Your task to perform on an android device: turn off translation in the chrome app Image 0: 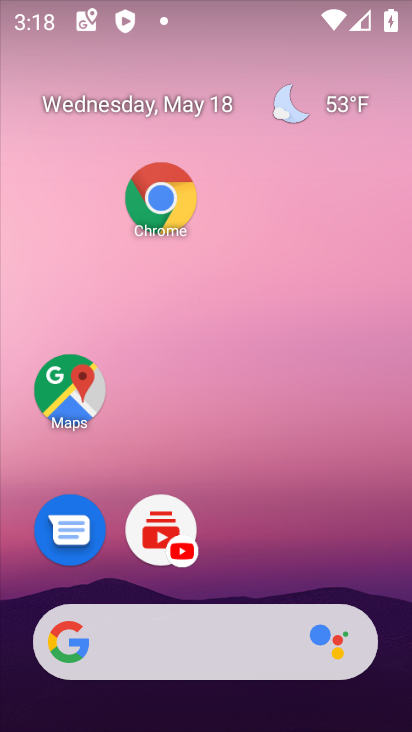
Step 0: drag from (256, 644) to (248, 153)
Your task to perform on an android device: turn off translation in the chrome app Image 1: 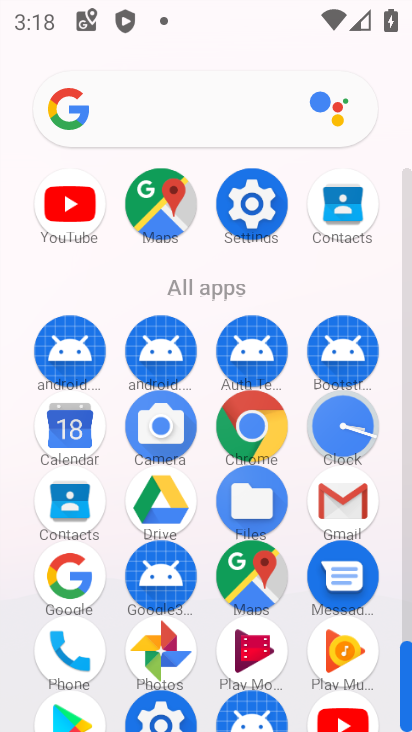
Step 1: click (248, 425)
Your task to perform on an android device: turn off translation in the chrome app Image 2: 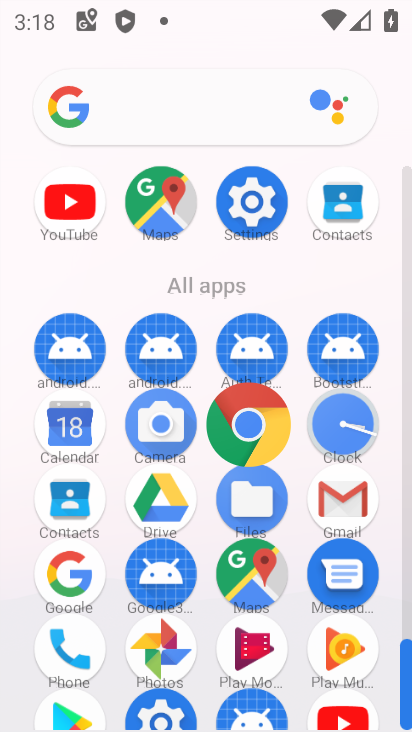
Step 2: click (248, 425)
Your task to perform on an android device: turn off translation in the chrome app Image 3: 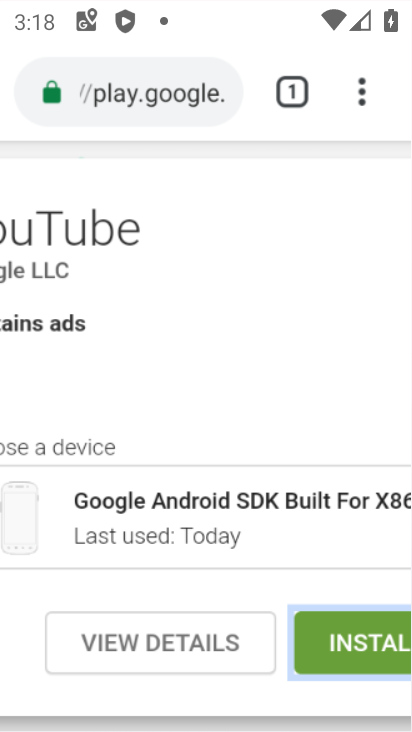
Step 3: click (248, 425)
Your task to perform on an android device: turn off translation in the chrome app Image 4: 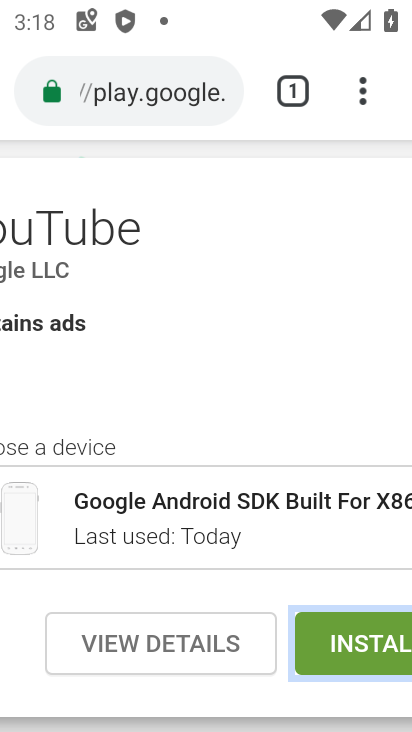
Step 4: drag from (359, 90) to (84, 140)
Your task to perform on an android device: turn off translation in the chrome app Image 5: 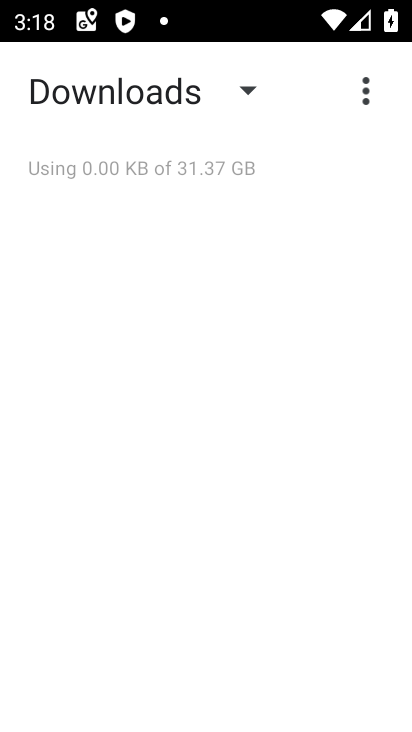
Step 5: press back button
Your task to perform on an android device: turn off translation in the chrome app Image 6: 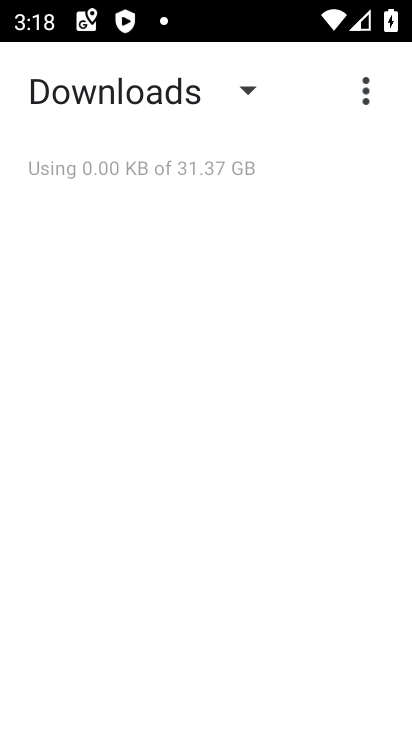
Step 6: press back button
Your task to perform on an android device: turn off translation in the chrome app Image 7: 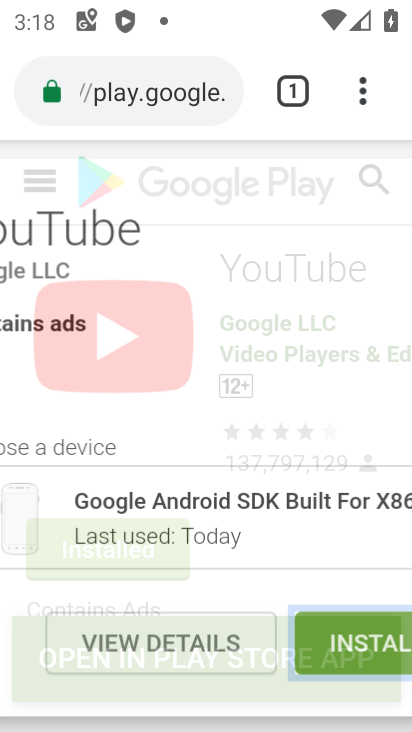
Step 7: drag from (357, 99) to (108, 290)
Your task to perform on an android device: turn off translation in the chrome app Image 8: 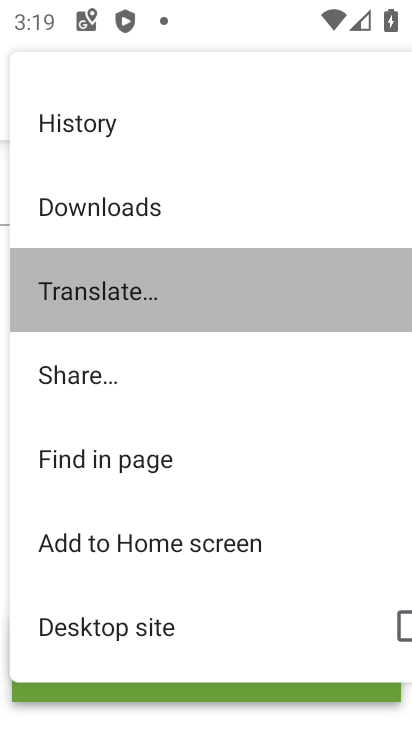
Step 8: click (97, 297)
Your task to perform on an android device: turn off translation in the chrome app Image 9: 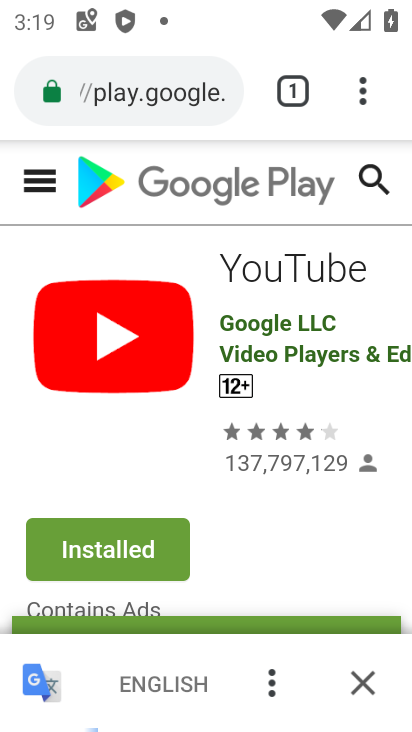
Step 9: drag from (363, 92) to (89, 558)
Your task to perform on an android device: turn off translation in the chrome app Image 10: 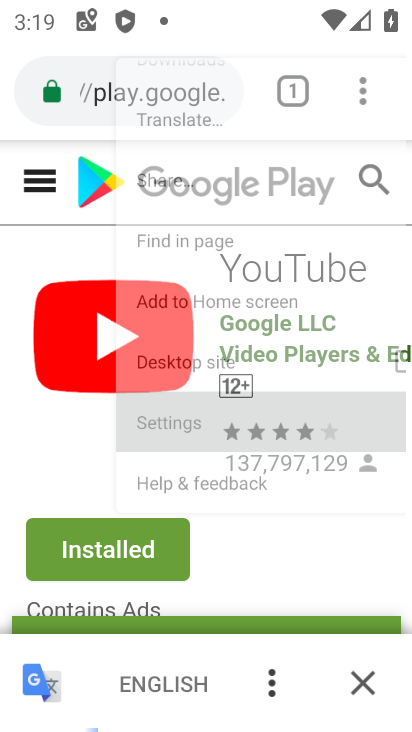
Step 10: click (89, 558)
Your task to perform on an android device: turn off translation in the chrome app Image 11: 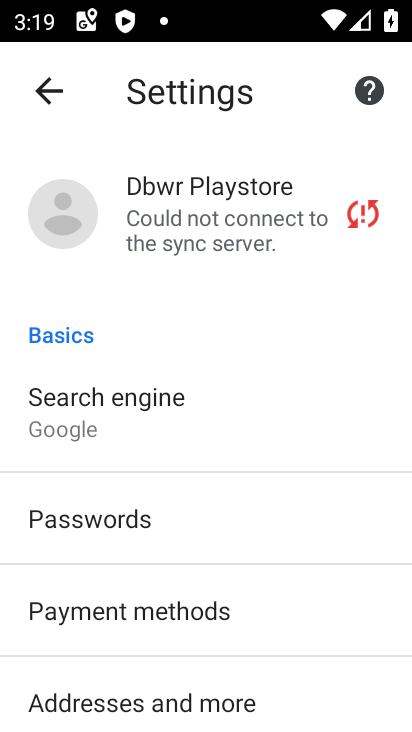
Step 11: drag from (186, 619) to (172, 299)
Your task to perform on an android device: turn off translation in the chrome app Image 12: 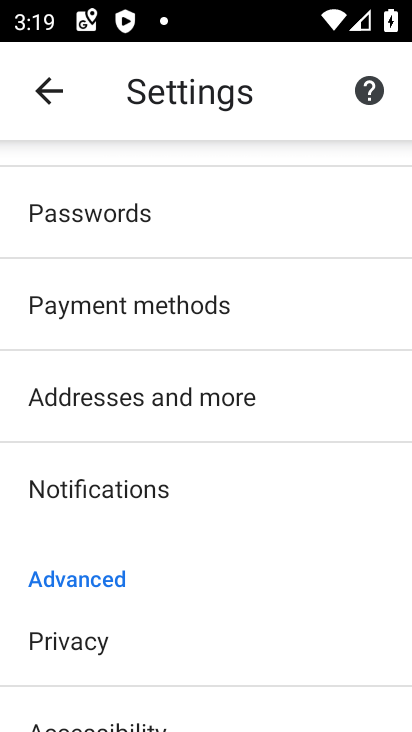
Step 12: drag from (149, 628) to (125, 415)
Your task to perform on an android device: turn off translation in the chrome app Image 13: 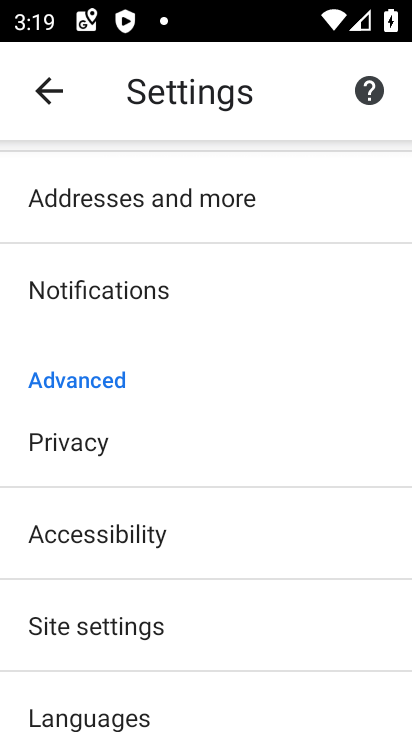
Step 13: drag from (109, 685) to (148, 408)
Your task to perform on an android device: turn off translation in the chrome app Image 14: 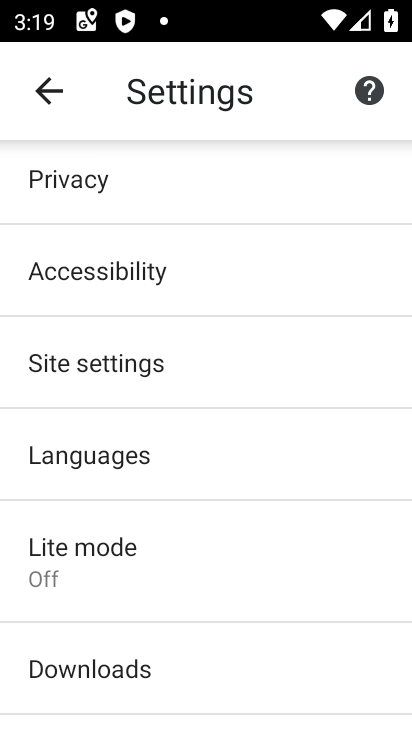
Step 14: click (67, 458)
Your task to perform on an android device: turn off translation in the chrome app Image 15: 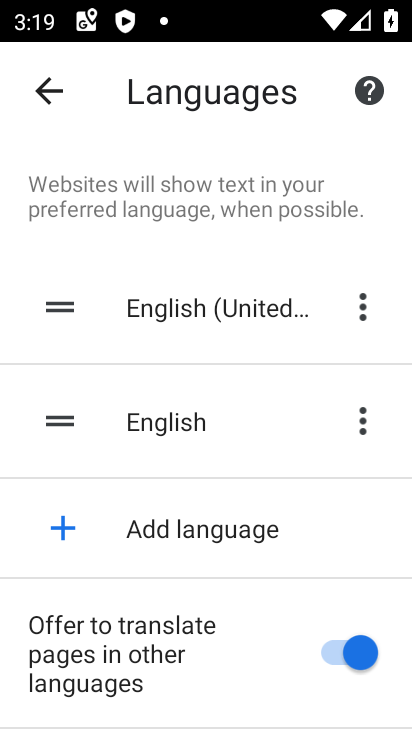
Step 15: click (359, 651)
Your task to perform on an android device: turn off translation in the chrome app Image 16: 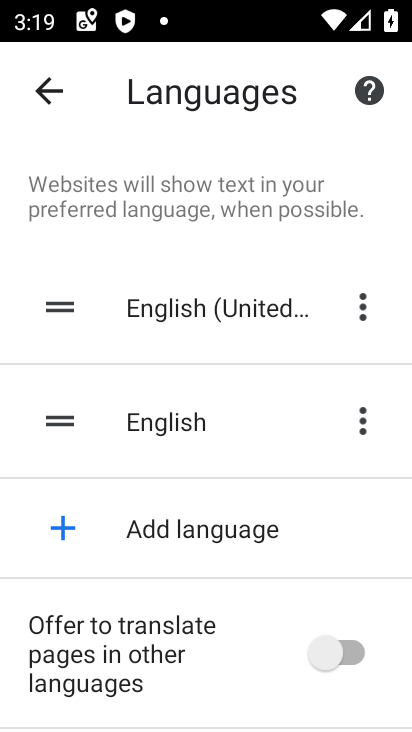
Step 16: click (51, 89)
Your task to perform on an android device: turn off translation in the chrome app Image 17: 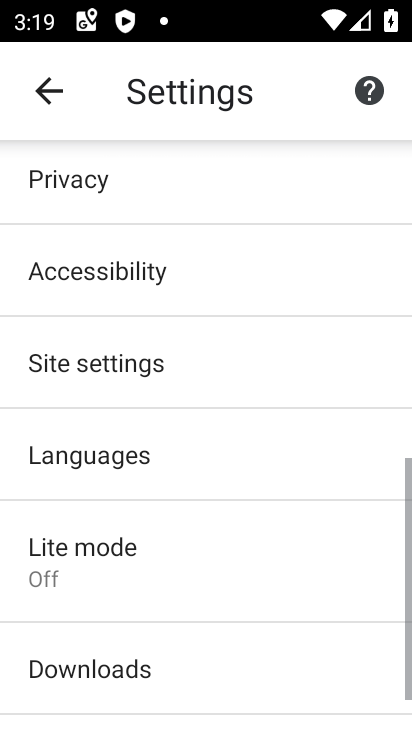
Step 17: press home button
Your task to perform on an android device: turn off translation in the chrome app Image 18: 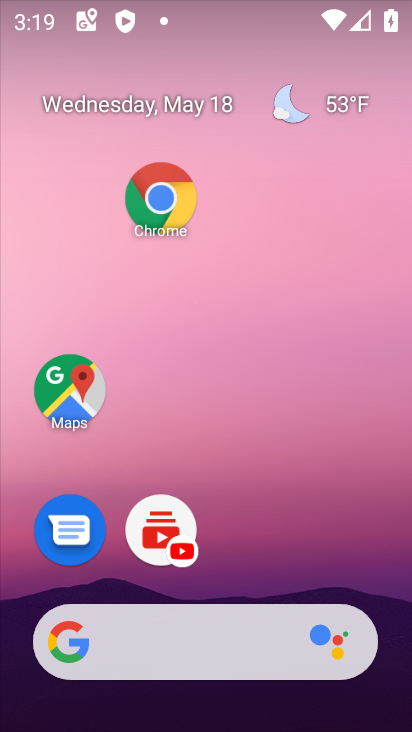
Step 18: drag from (261, 581) to (191, 24)
Your task to perform on an android device: turn off translation in the chrome app Image 19: 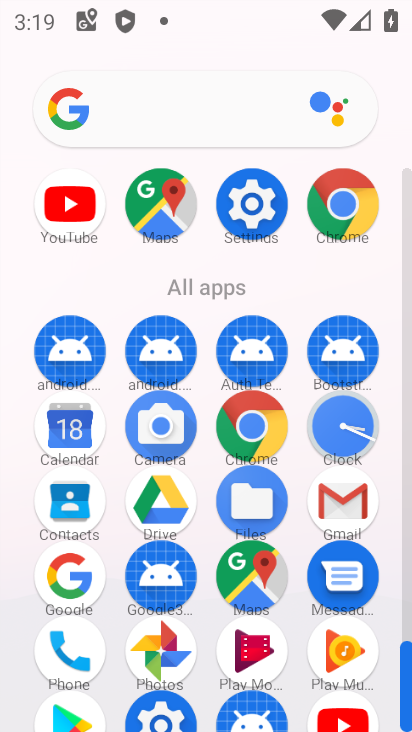
Step 19: click (334, 206)
Your task to perform on an android device: turn off translation in the chrome app Image 20: 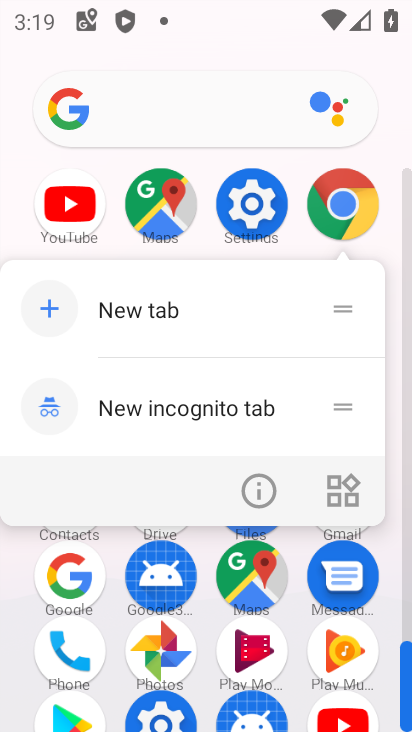
Step 20: click (335, 189)
Your task to perform on an android device: turn off translation in the chrome app Image 21: 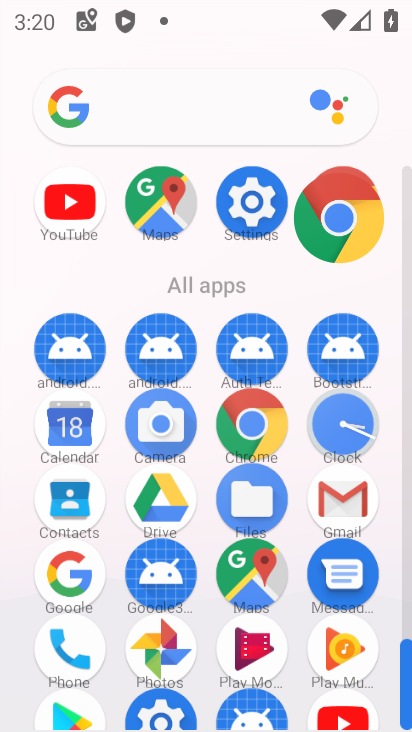
Step 21: click (332, 198)
Your task to perform on an android device: turn off translation in the chrome app Image 22: 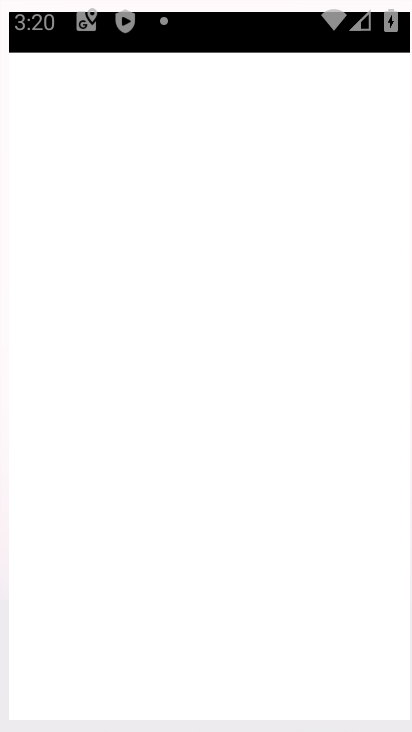
Step 22: click (332, 198)
Your task to perform on an android device: turn off translation in the chrome app Image 23: 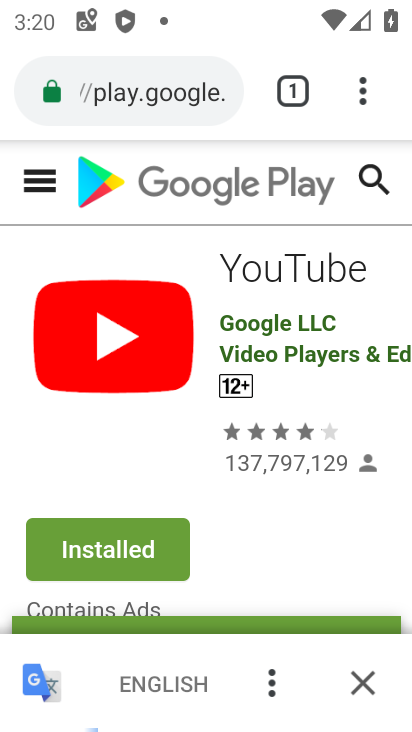
Step 23: press back button
Your task to perform on an android device: turn off translation in the chrome app Image 24: 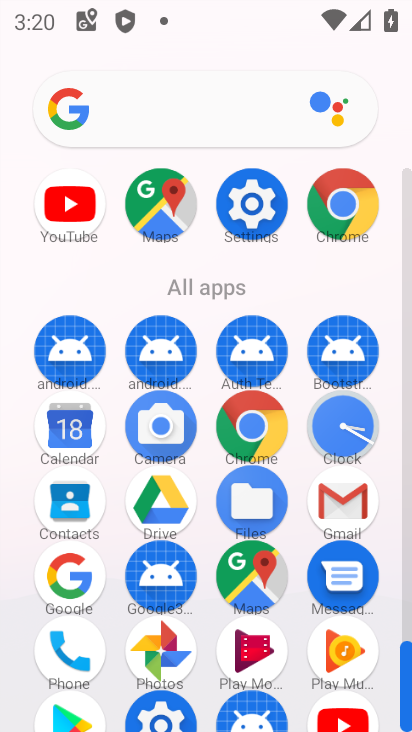
Step 24: click (337, 204)
Your task to perform on an android device: turn off translation in the chrome app Image 25: 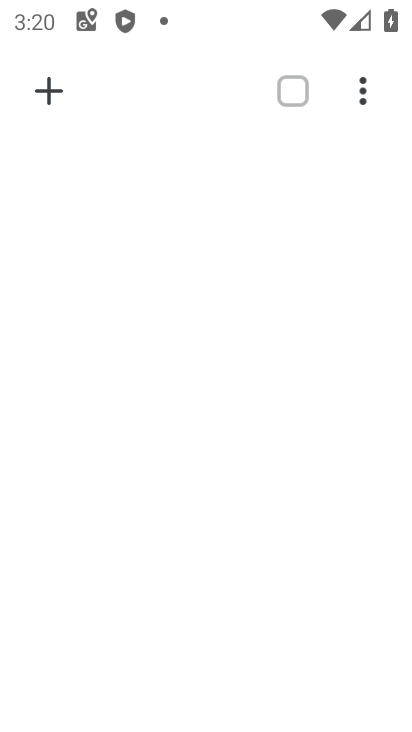
Step 25: press back button
Your task to perform on an android device: turn off translation in the chrome app Image 26: 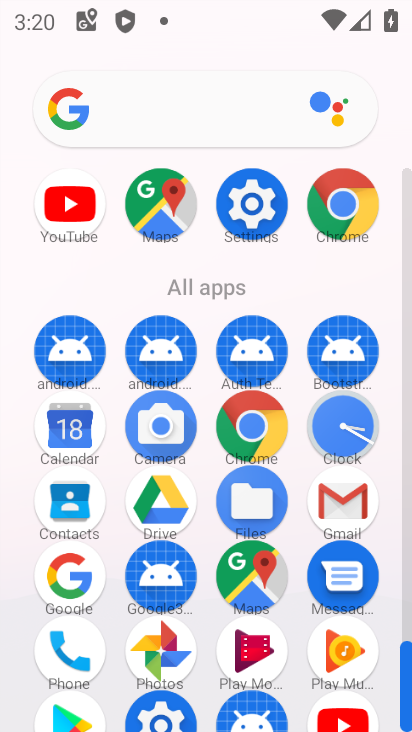
Step 26: click (335, 219)
Your task to perform on an android device: turn off translation in the chrome app Image 27: 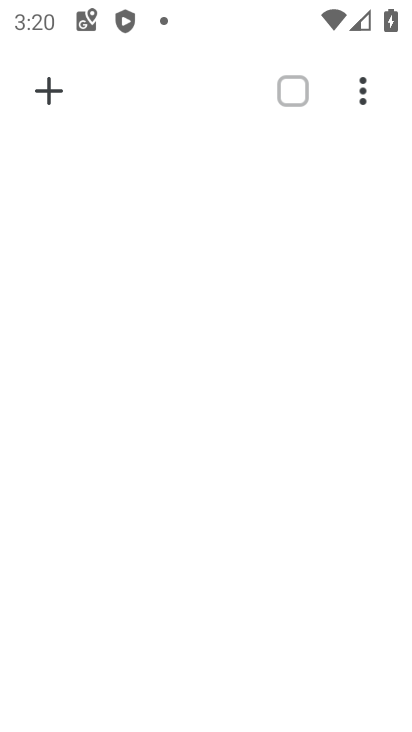
Step 27: click (348, 92)
Your task to perform on an android device: turn off translation in the chrome app Image 28: 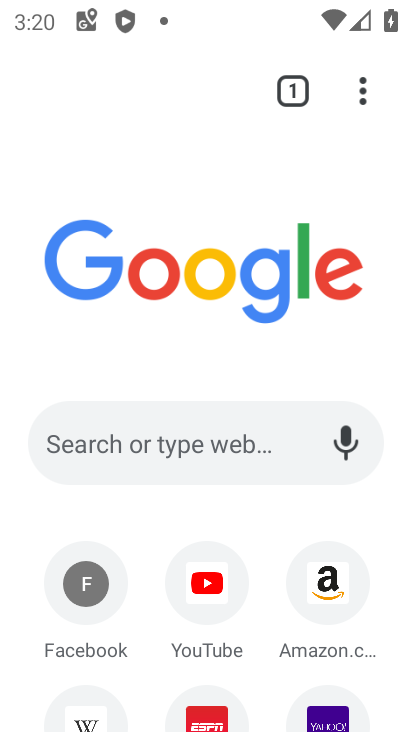
Step 28: click (362, 81)
Your task to perform on an android device: turn off translation in the chrome app Image 29: 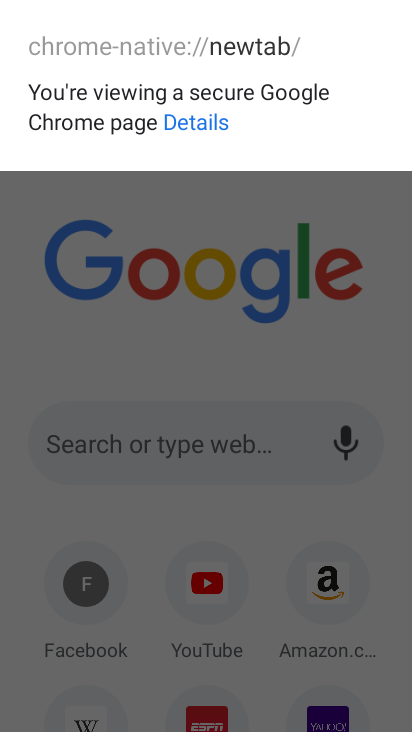
Step 29: click (327, 212)
Your task to perform on an android device: turn off translation in the chrome app Image 30: 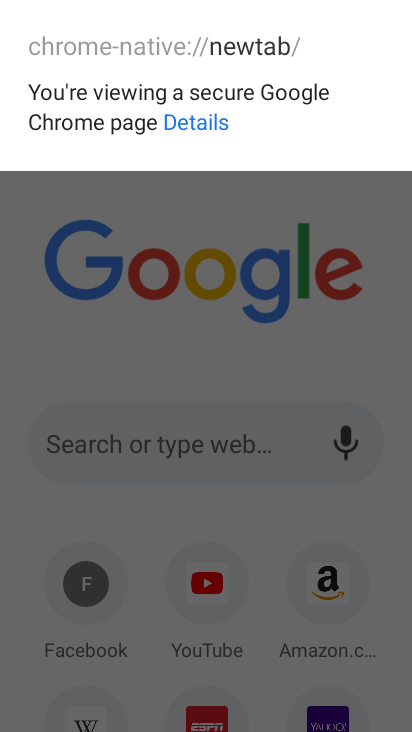
Step 30: click (332, 206)
Your task to perform on an android device: turn off translation in the chrome app Image 31: 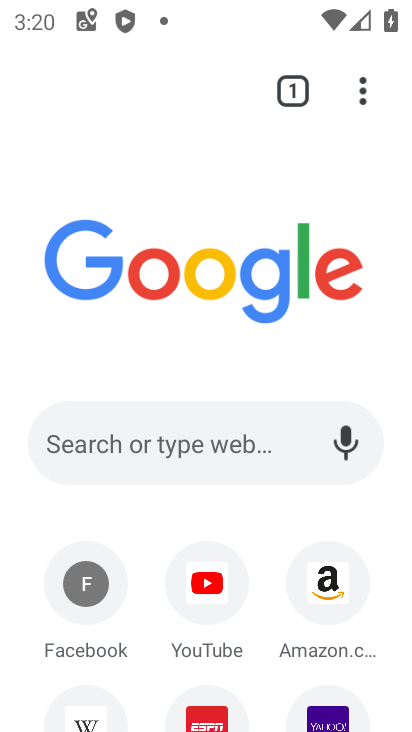
Step 31: click (357, 86)
Your task to perform on an android device: turn off translation in the chrome app Image 32: 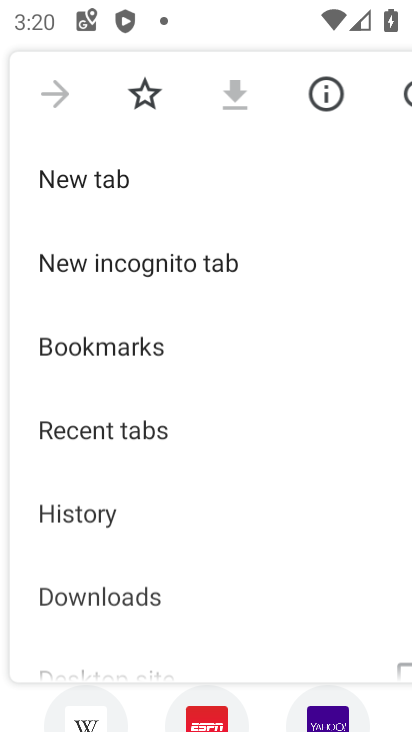
Step 32: click (362, 86)
Your task to perform on an android device: turn off translation in the chrome app Image 33: 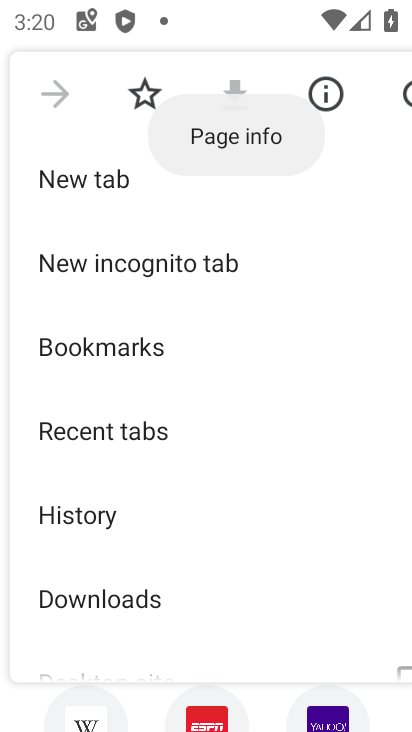
Step 33: click (248, 195)
Your task to perform on an android device: turn off translation in the chrome app Image 34: 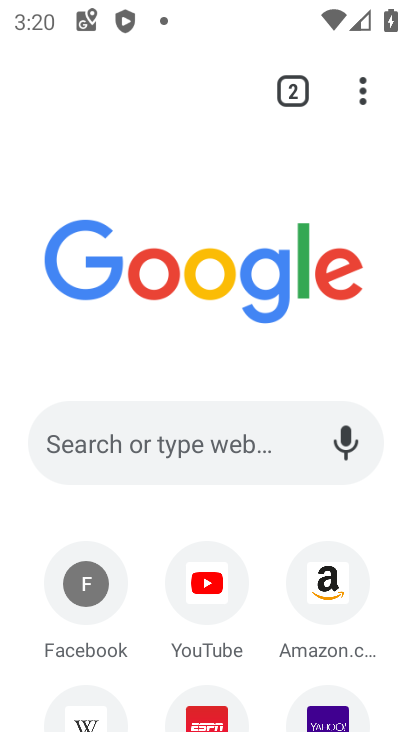
Step 34: click (362, 91)
Your task to perform on an android device: turn off translation in the chrome app Image 35: 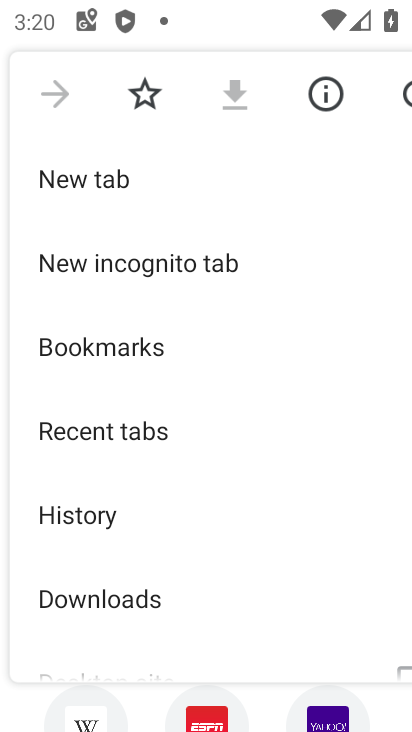
Step 35: drag from (192, 552) to (237, 211)
Your task to perform on an android device: turn off translation in the chrome app Image 36: 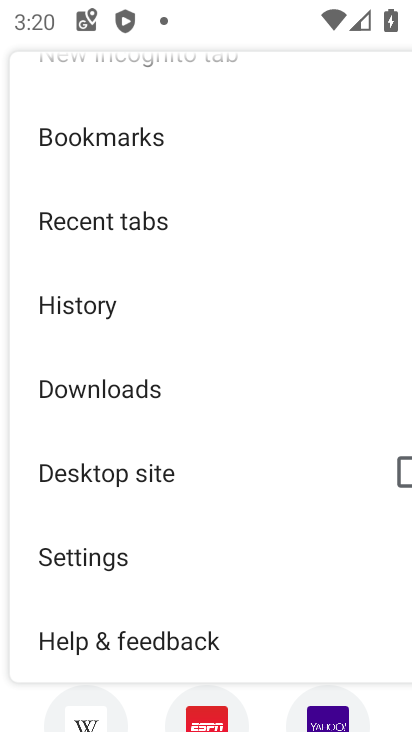
Step 36: click (77, 550)
Your task to perform on an android device: turn off translation in the chrome app Image 37: 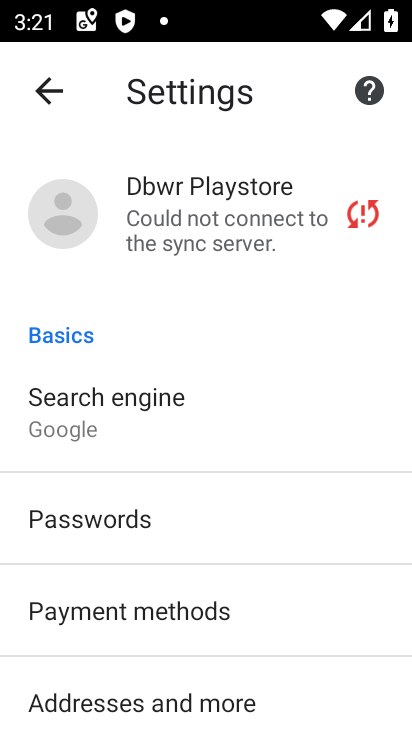
Step 37: drag from (151, 526) to (215, 194)
Your task to perform on an android device: turn off translation in the chrome app Image 38: 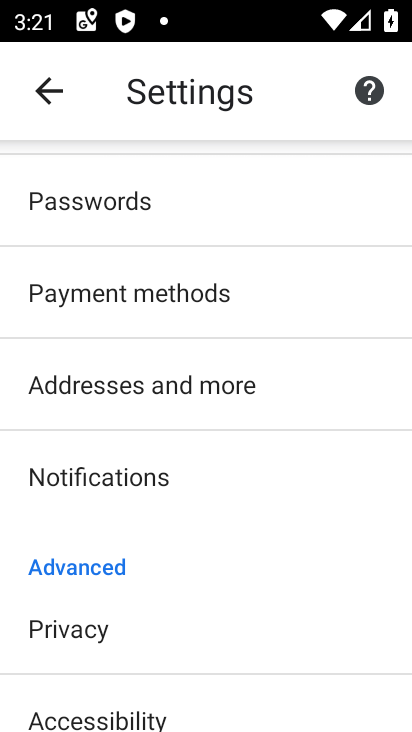
Step 38: drag from (183, 562) to (228, 251)
Your task to perform on an android device: turn off translation in the chrome app Image 39: 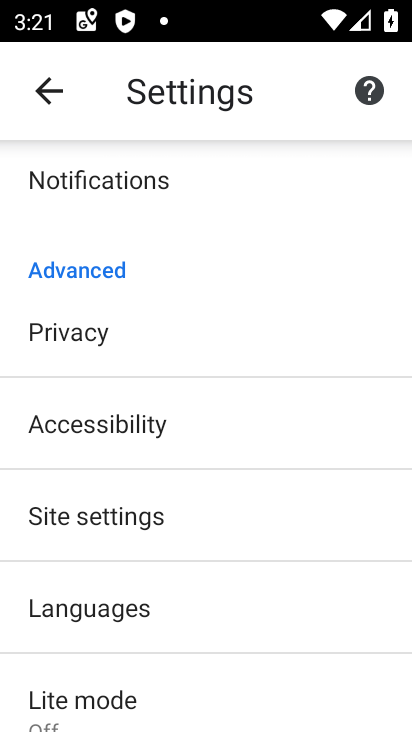
Step 39: click (88, 615)
Your task to perform on an android device: turn off translation in the chrome app Image 40: 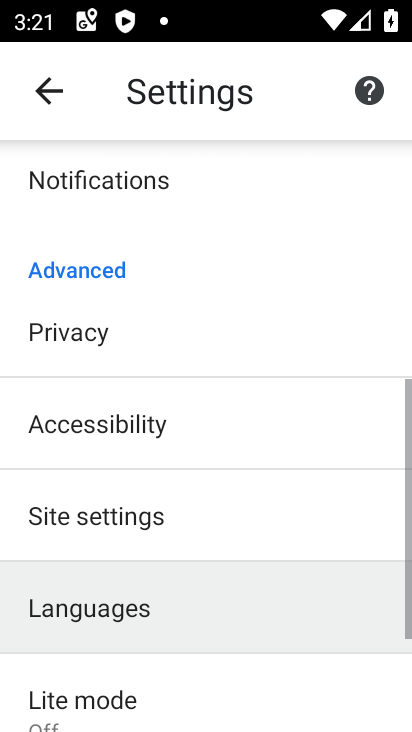
Step 40: click (96, 610)
Your task to perform on an android device: turn off translation in the chrome app Image 41: 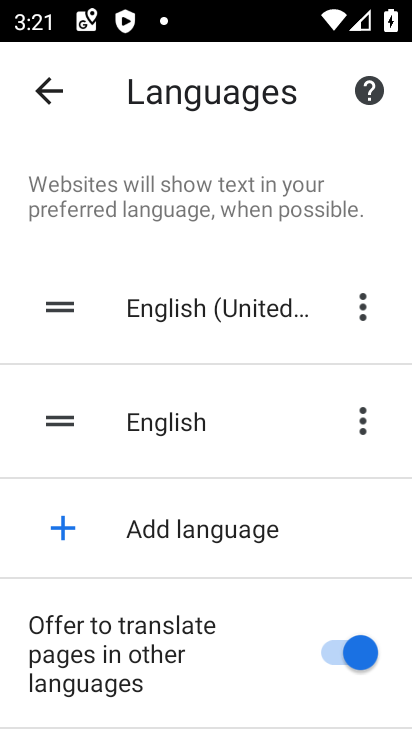
Step 41: click (340, 648)
Your task to perform on an android device: turn off translation in the chrome app Image 42: 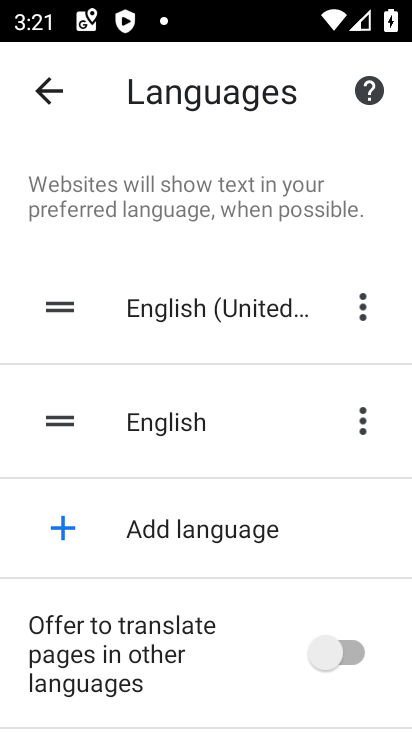
Step 42: task complete